Your task to perform on an android device: Open Maps and search for coffee Image 0: 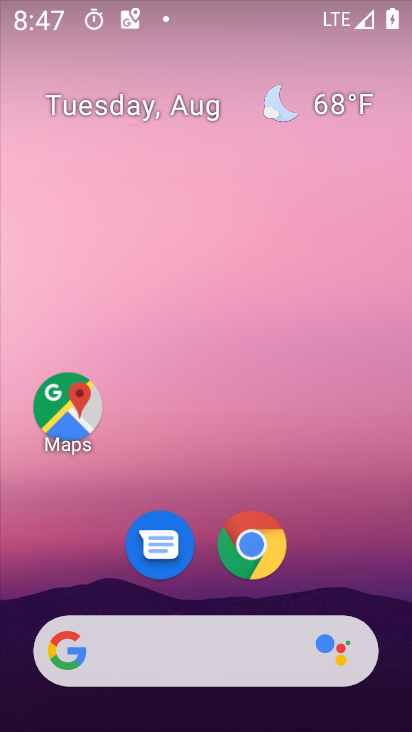
Step 0: drag from (191, 726) to (195, 20)
Your task to perform on an android device: Open Maps and search for coffee Image 1: 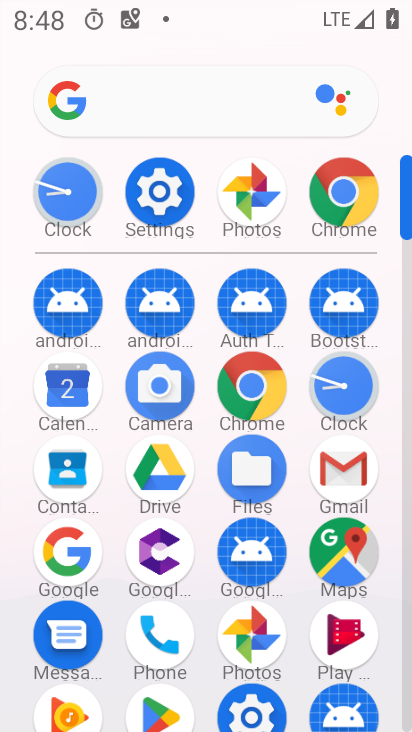
Step 1: drag from (246, 605) to (246, 329)
Your task to perform on an android device: Open Maps and search for coffee Image 2: 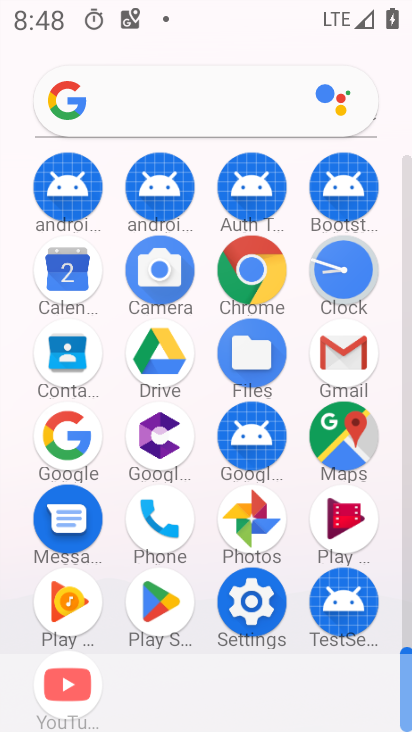
Step 2: click (353, 453)
Your task to perform on an android device: Open Maps and search for coffee Image 3: 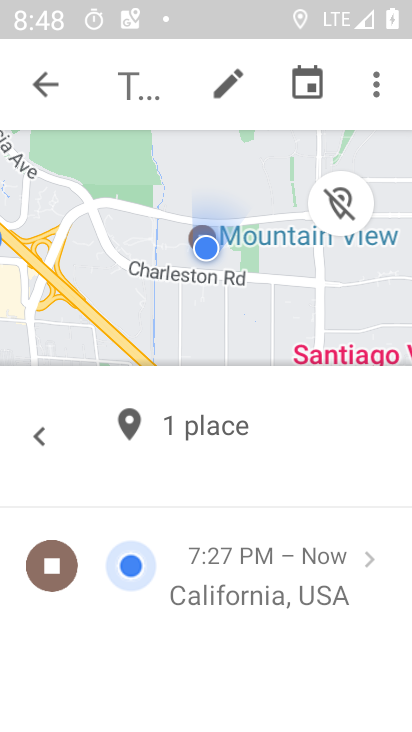
Step 3: click (52, 84)
Your task to perform on an android device: Open Maps and search for coffee Image 4: 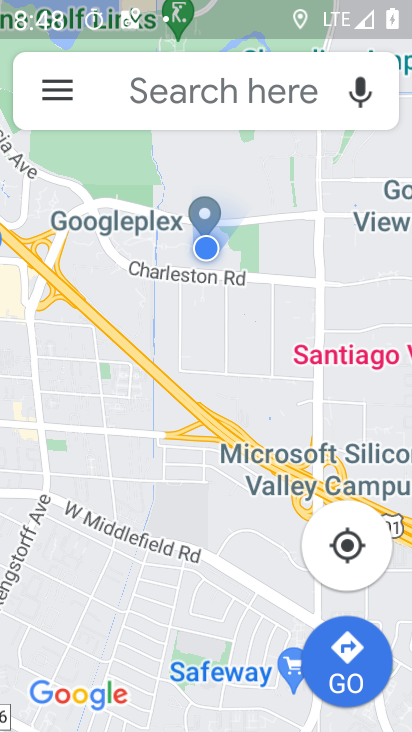
Step 4: click (159, 83)
Your task to perform on an android device: Open Maps and search for coffee Image 5: 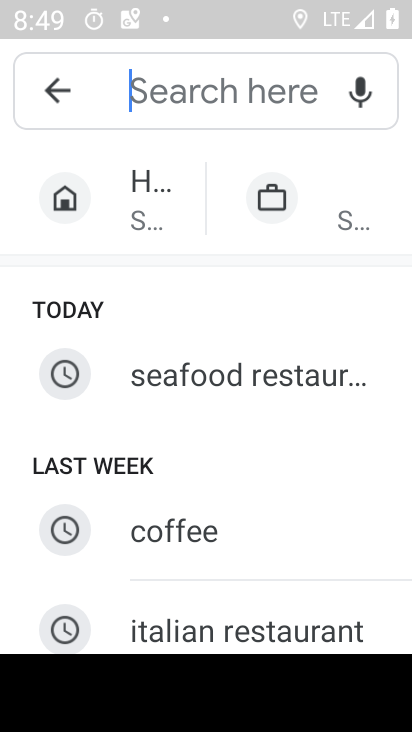
Step 5: click (180, 524)
Your task to perform on an android device: Open Maps and search for coffee Image 6: 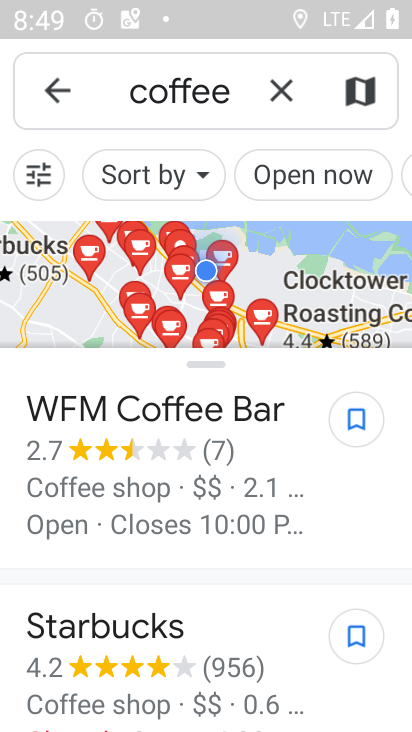
Step 6: task complete